Your task to perform on an android device: find snoozed emails in the gmail app Image 0: 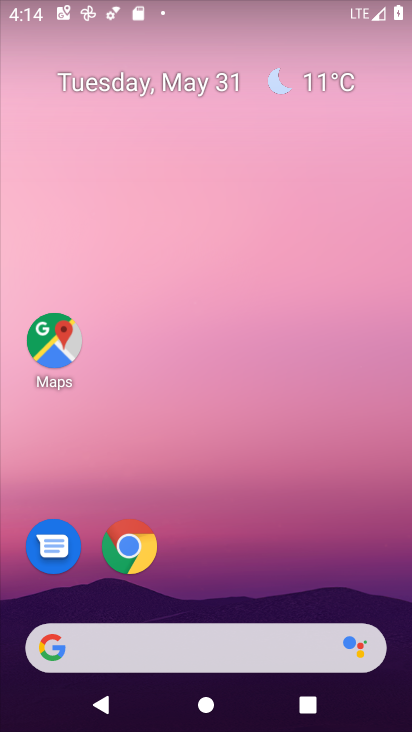
Step 0: drag from (254, 489) to (152, 74)
Your task to perform on an android device: find snoozed emails in the gmail app Image 1: 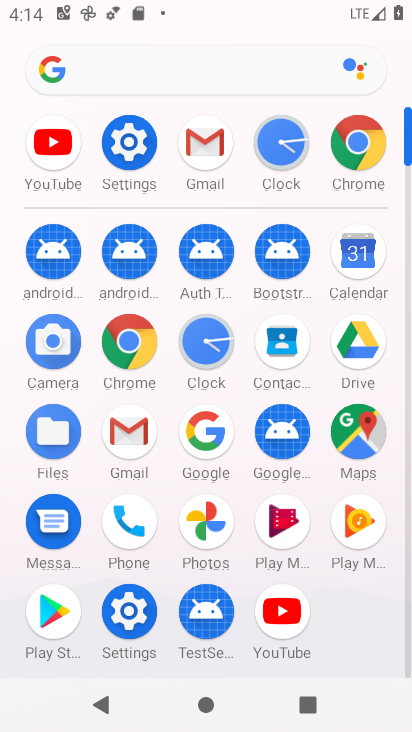
Step 1: click (199, 144)
Your task to perform on an android device: find snoozed emails in the gmail app Image 2: 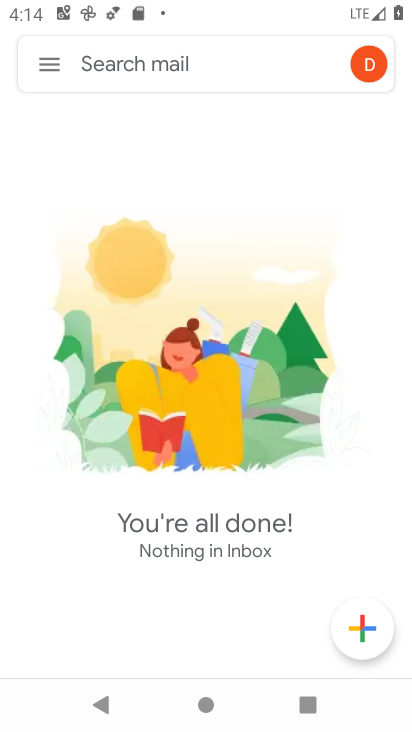
Step 2: click (56, 55)
Your task to perform on an android device: find snoozed emails in the gmail app Image 3: 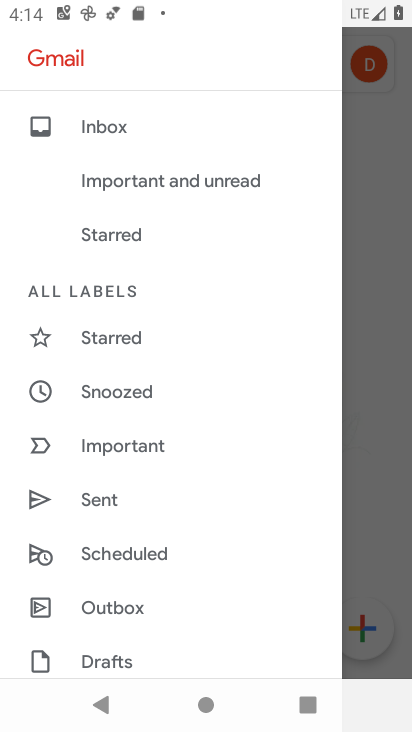
Step 3: click (132, 391)
Your task to perform on an android device: find snoozed emails in the gmail app Image 4: 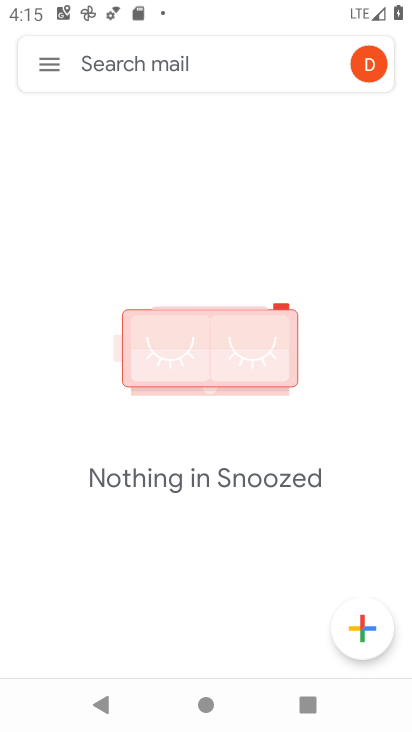
Step 4: task complete